Your task to perform on an android device: Go to Android settings Image 0: 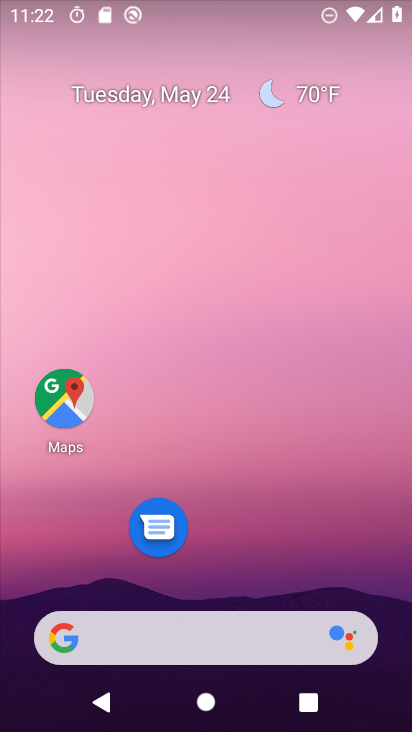
Step 0: drag from (225, 539) to (224, 79)
Your task to perform on an android device: Go to Android settings Image 1: 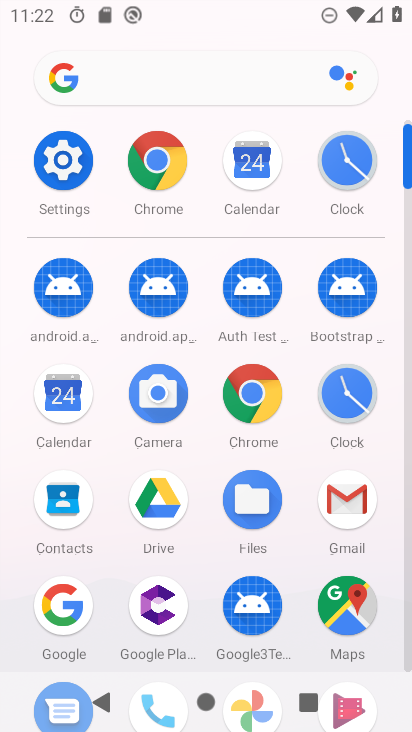
Step 1: click (64, 161)
Your task to perform on an android device: Go to Android settings Image 2: 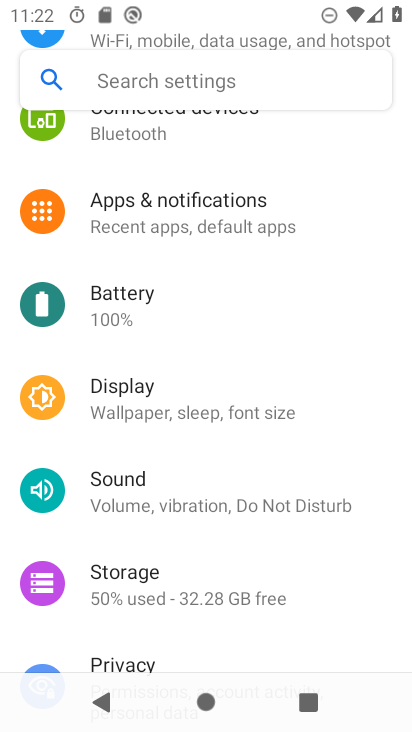
Step 2: task complete